Your task to perform on an android device: Add asus zenbook to the cart on ebay.com, then select checkout. Image 0: 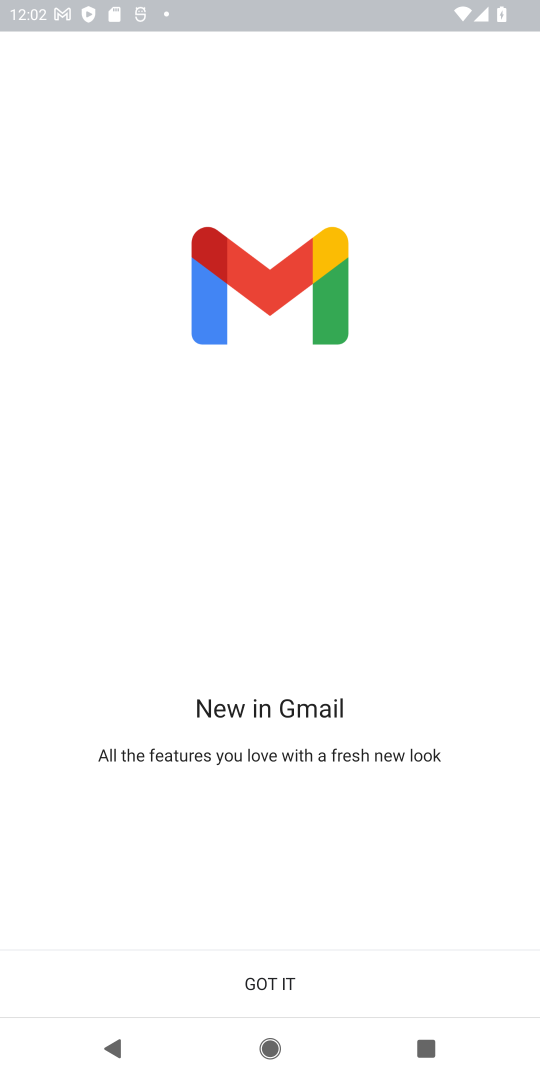
Step 0: task complete